Your task to perform on an android device: Open Google Chrome and open the bookmarks view Image 0: 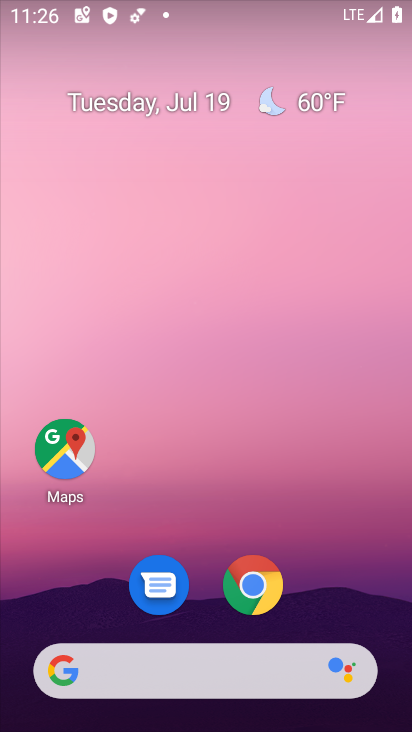
Step 0: drag from (246, 506) to (233, 21)
Your task to perform on an android device: Open Google Chrome and open the bookmarks view Image 1: 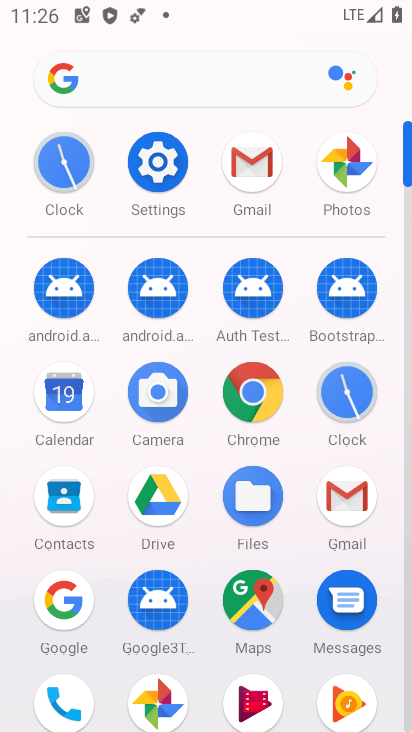
Step 1: click (256, 378)
Your task to perform on an android device: Open Google Chrome and open the bookmarks view Image 2: 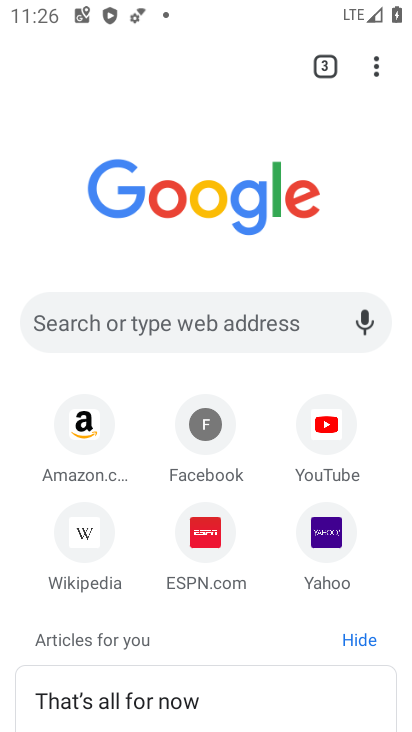
Step 2: click (374, 74)
Your task to perform on an android device: Open Google Chrome and open the bookmarks view Image 3: 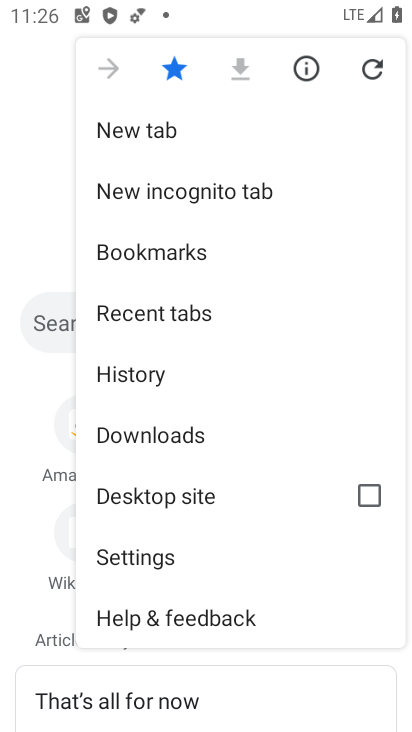
Step 3: click (197, 249)
Your task to perform on an android device: Open Google Chrome and open the bookmarks view Image 4: 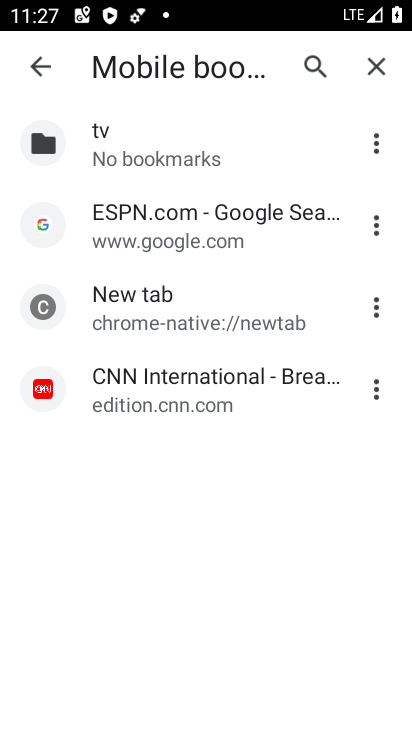
Step 4: task complete